Your task to perform on an android device: Go to battery settings Image 0: 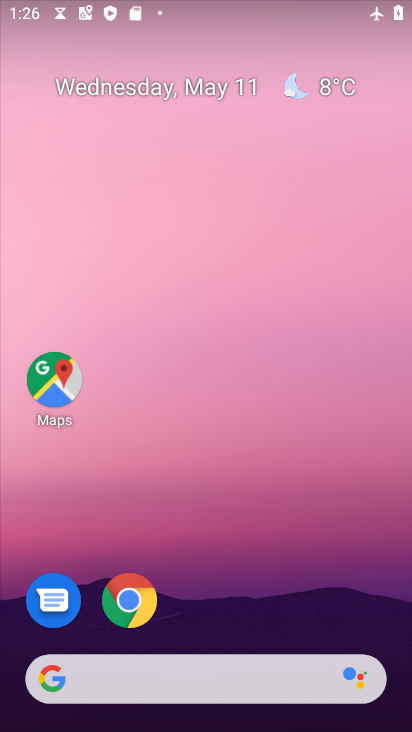
Step 0: drag from (290, 576) to (226, 105)
Your task to perform on an android device: Go to battery settings Image 1: 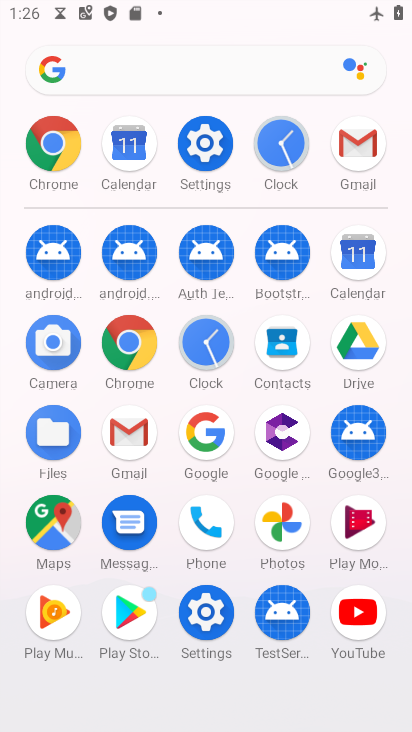
Step 1: click (206, 153)
Your task to perform on an android device: Go to battery settings Image 2: 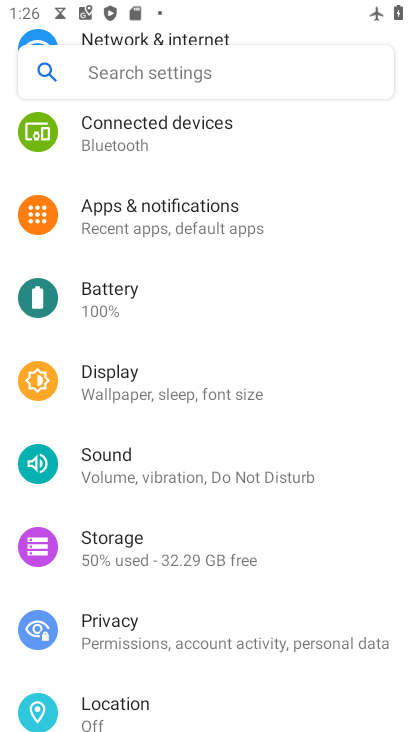
Step 2: click (173, 303)
Your task to perform on an android device: Go to battery settings Image 3: 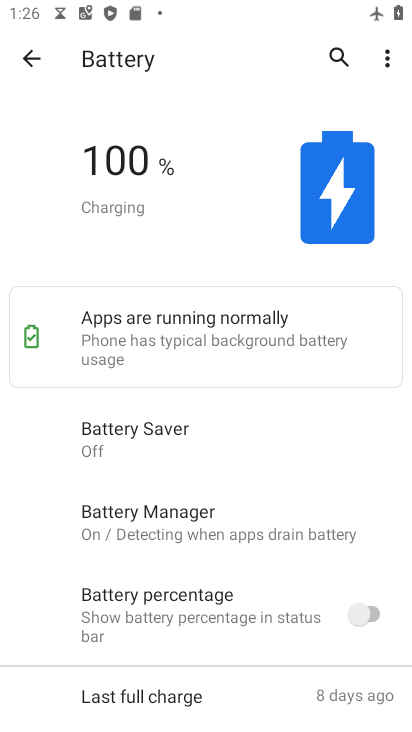
Step 3: task complete